Your task to perform on an android device: Turn off the flashlight Image 0: 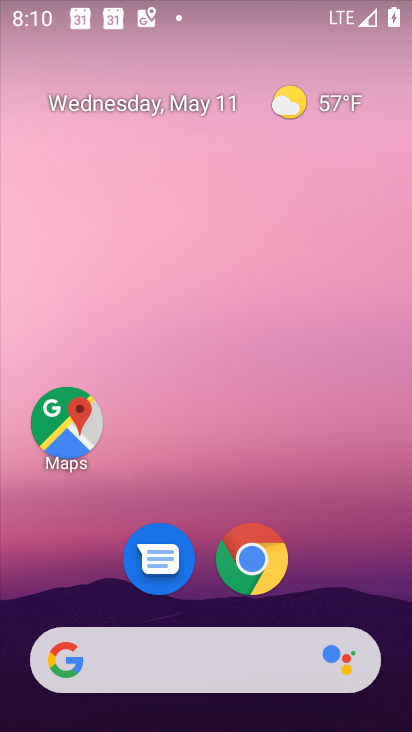
Step 0: press home button
Your task to perform on an android device: Turn off the flashlight Image 1: 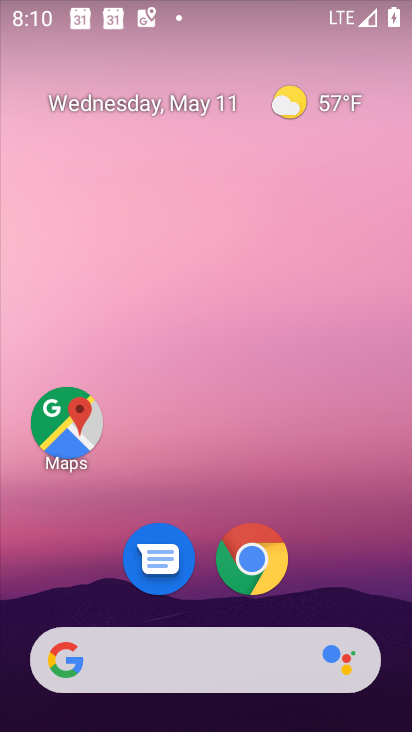
Step 1: task complete